Your task to perform on an android device: Go to Android settings Image 0: 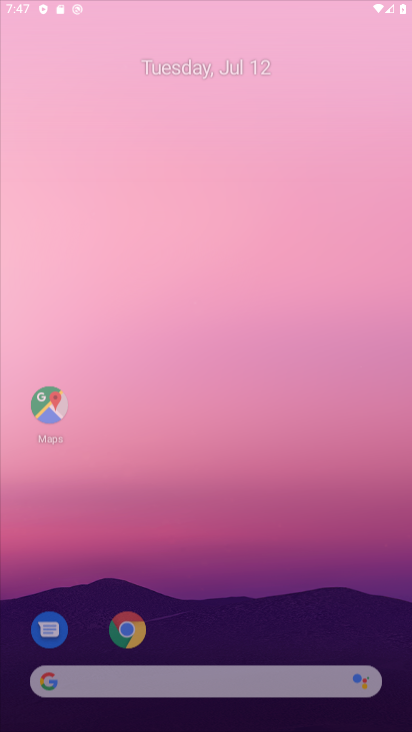
Step 0: press home button
Your task to perform on an android device: Go to Android settings Image 1: 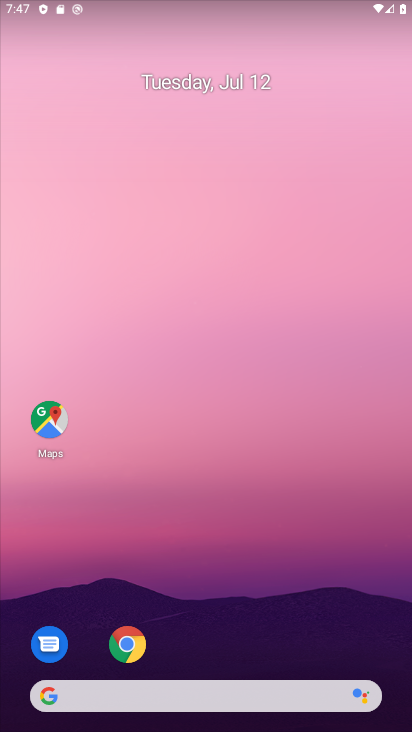
Step 1: press home button
Your task to perform on an android device: Go to Android settings Image 2: 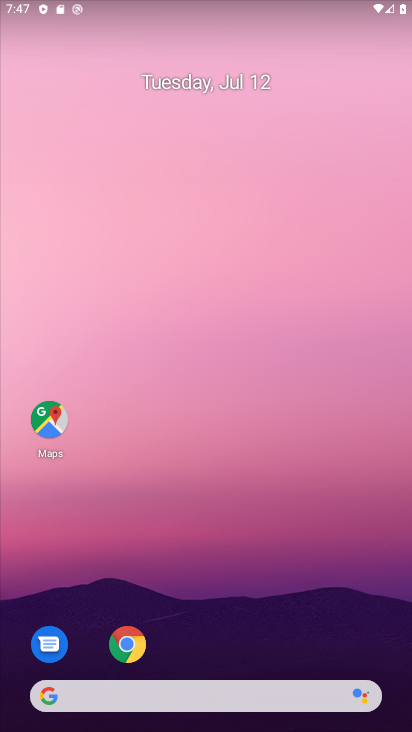
Step 2: drag from (231, 640) to (249, 36)
Your task to perform on an android device: Go to Android settings Image 3: 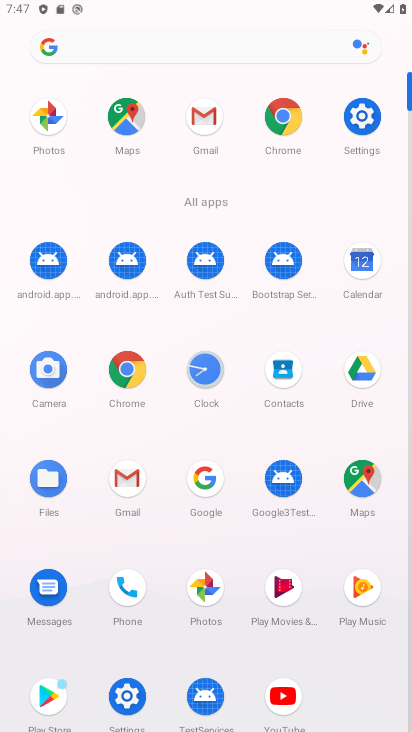
Step 3: click (359, 109)
Your task to perform on an android device: Go to Android settings Image 4: 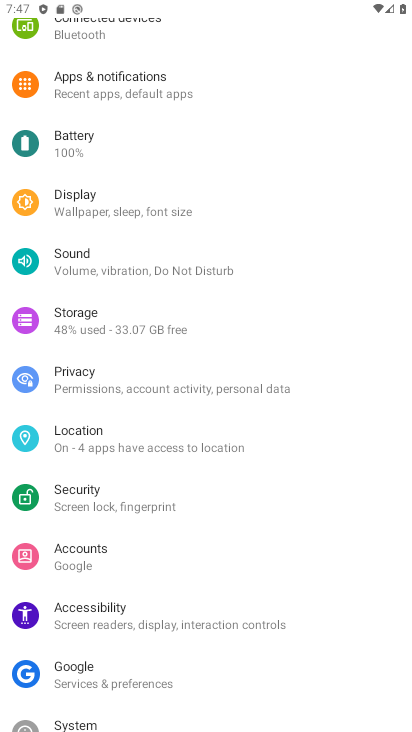
Step 4: drag from (181, 687) to (239, 32)
Your task to perform on an android device: Go to Android settings Image 5: 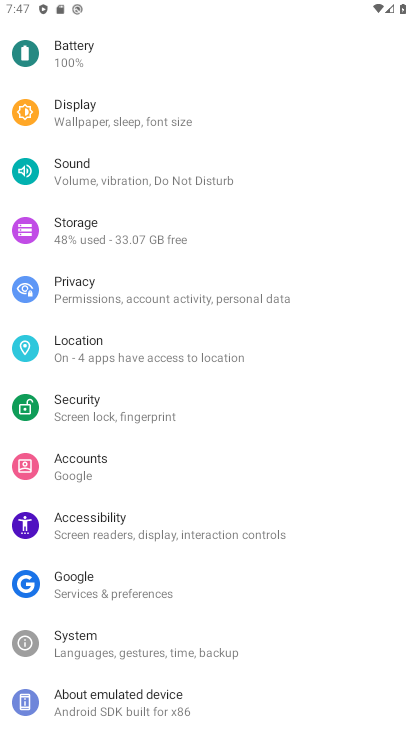
Step 5: click (189, 708)
Your task to perform on an android device: Go to Android settings Image 6: 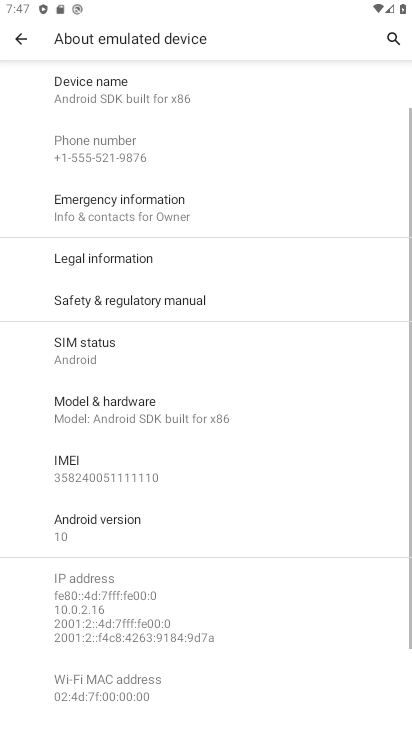
Step 6: click (111, 529)
Your task to perform on an android device: Go to Android settings Image 7: 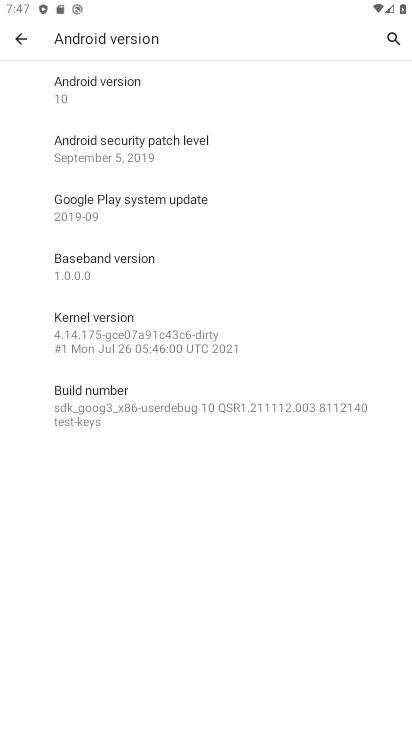
Step 7: task complete